Your task to perform on an android device: View the shopping cart on amazon. Search for lg ultragear on amazon, select the first entry, add it to the cart, then select checkout. Image 0: 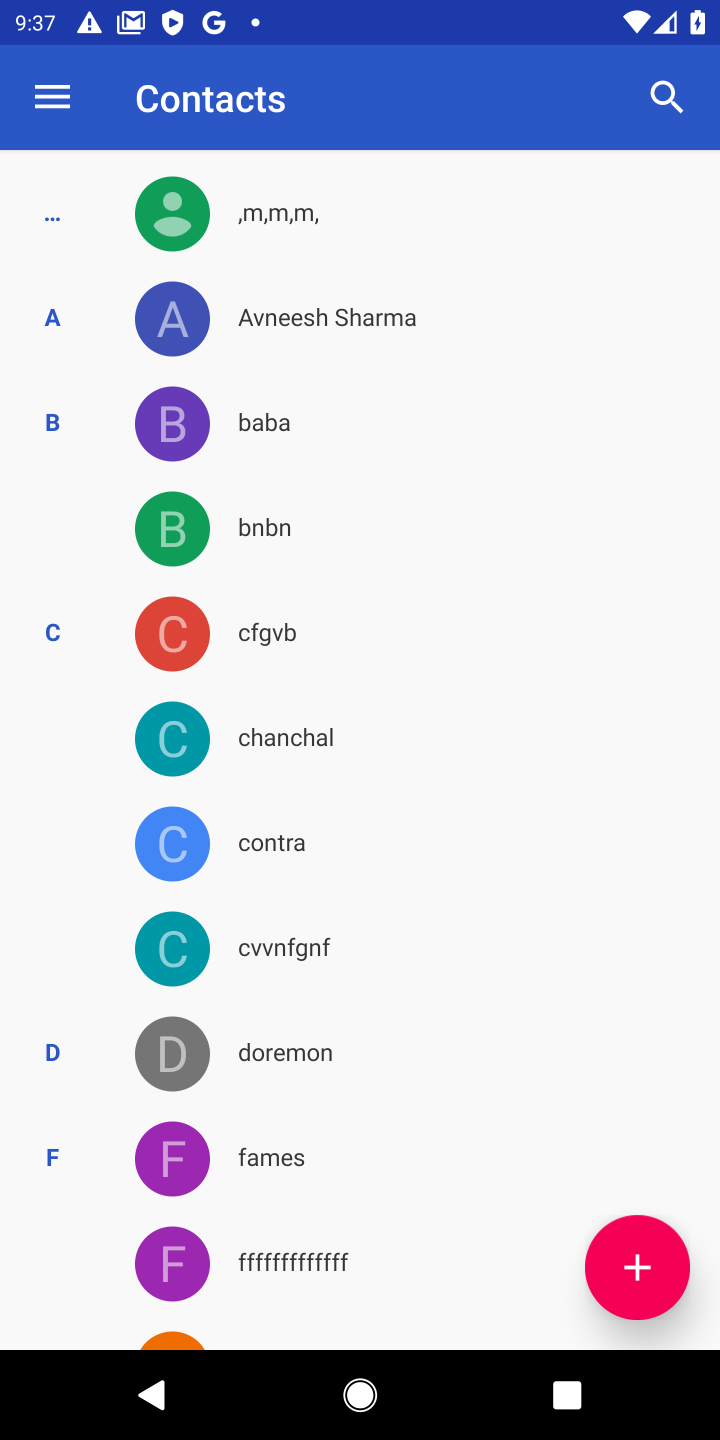
Step 0: press home button
Your task to perform on an android device: View the shopping cart on amazon. Search for lg ultragear on amazon, select the first entry, add it to the cart, then select checkout. Image 1: 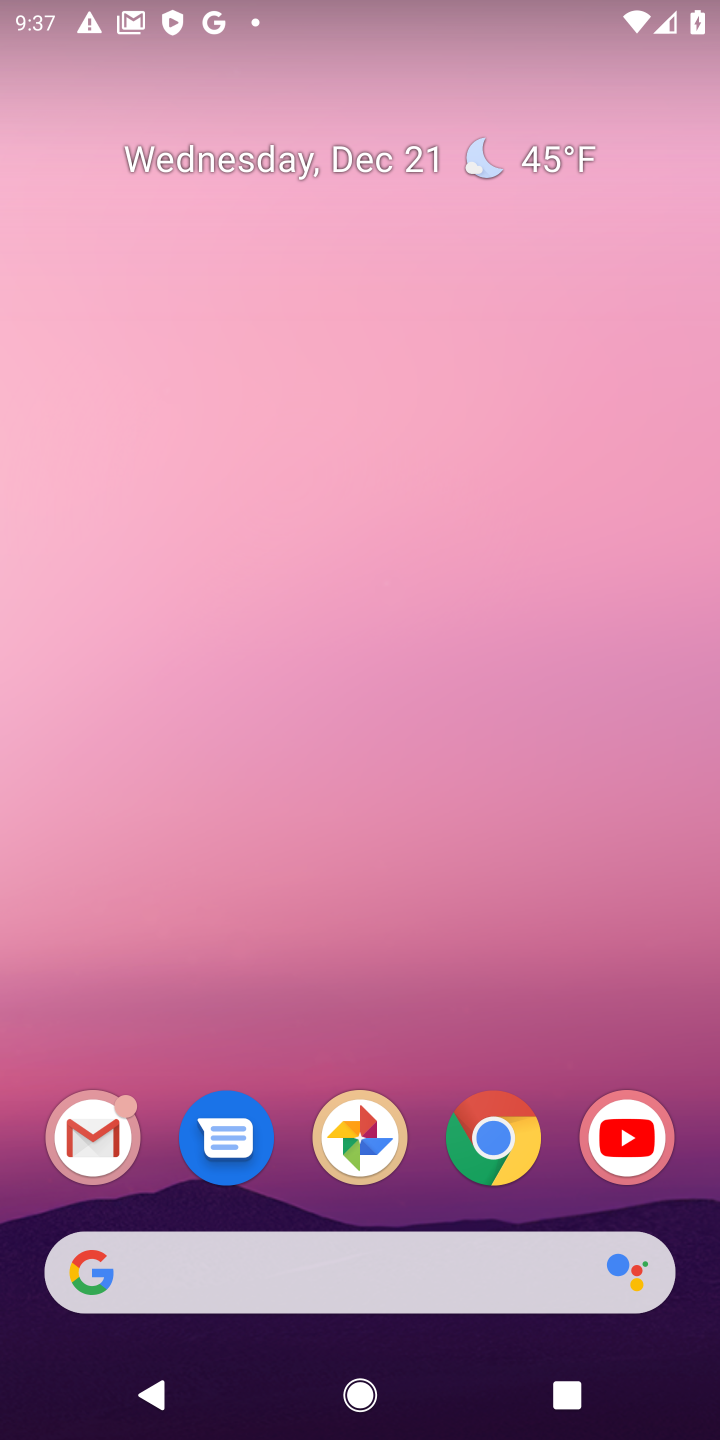
Step 1: click (497, 1150)
Your task to perform on an android device: View the shopping cart on amazon. Search for lg ultragear on amazon, select the first entry, add it to the cart, then select checkout. Image 2: 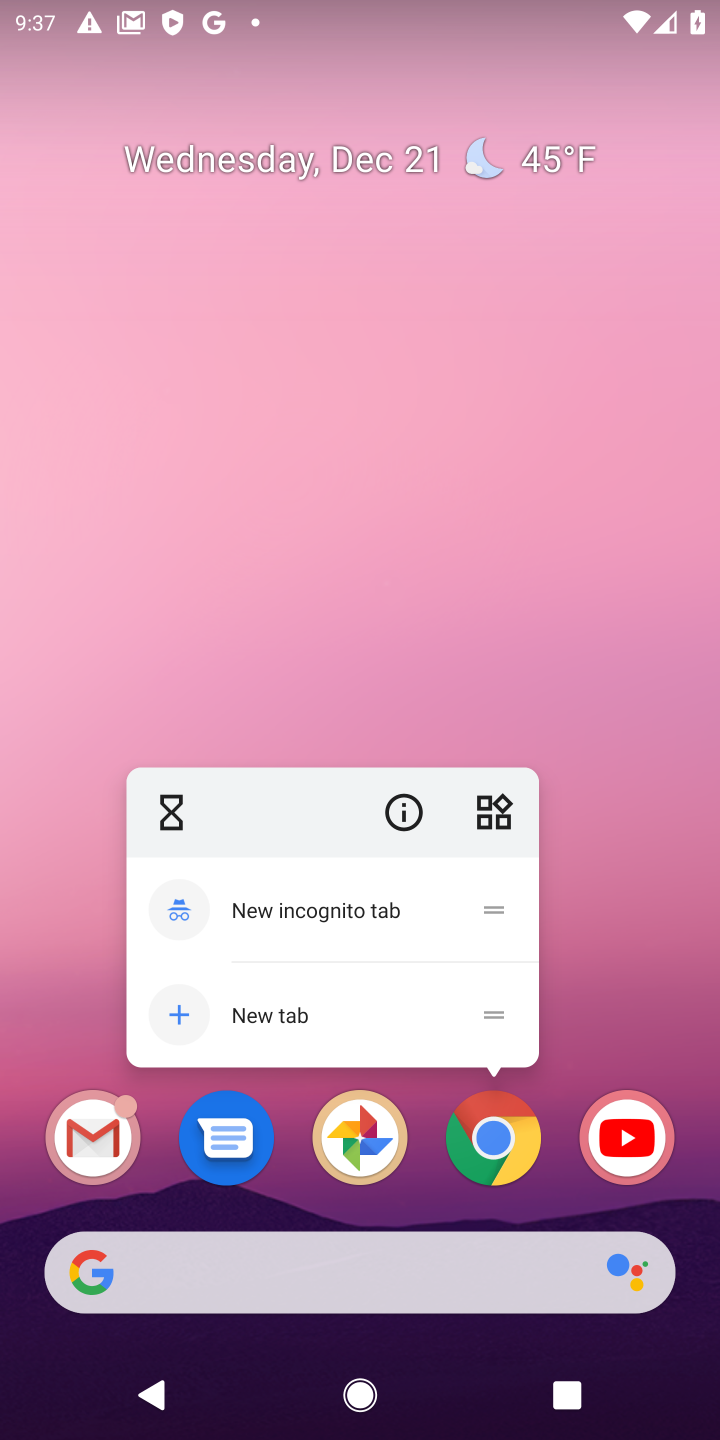
Step 2: click (497, 1150)
Your task to perform on an android device: View the shopping cart on amazon. Search for lg ultragear on amazon, select the first entry, add it to the cart, then select checkout. Image 3: 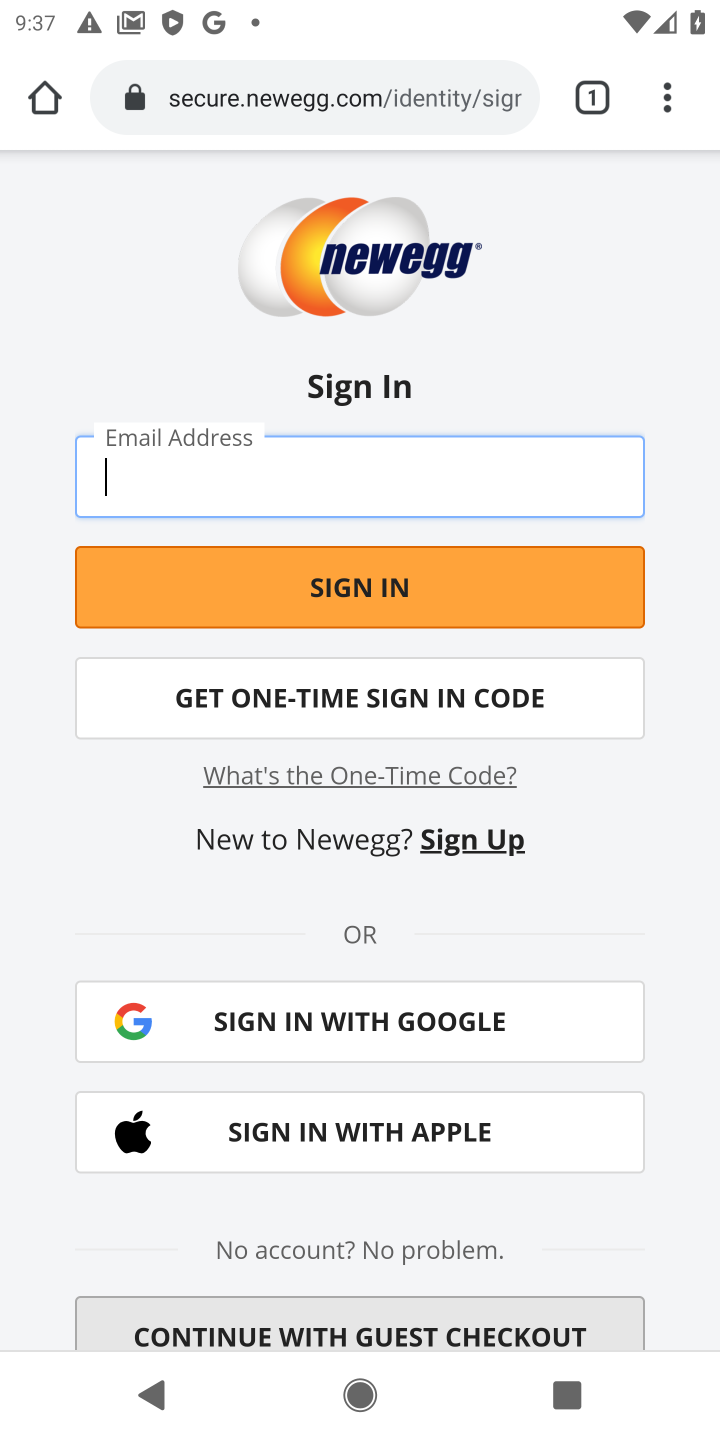
Step 3: click (308, 104)
Your task to perform on an android device: View the shopping cart on amazon. Search for lg ultragear on amazon, select the first entry, add it to the cart, then select checkout. Image 4: 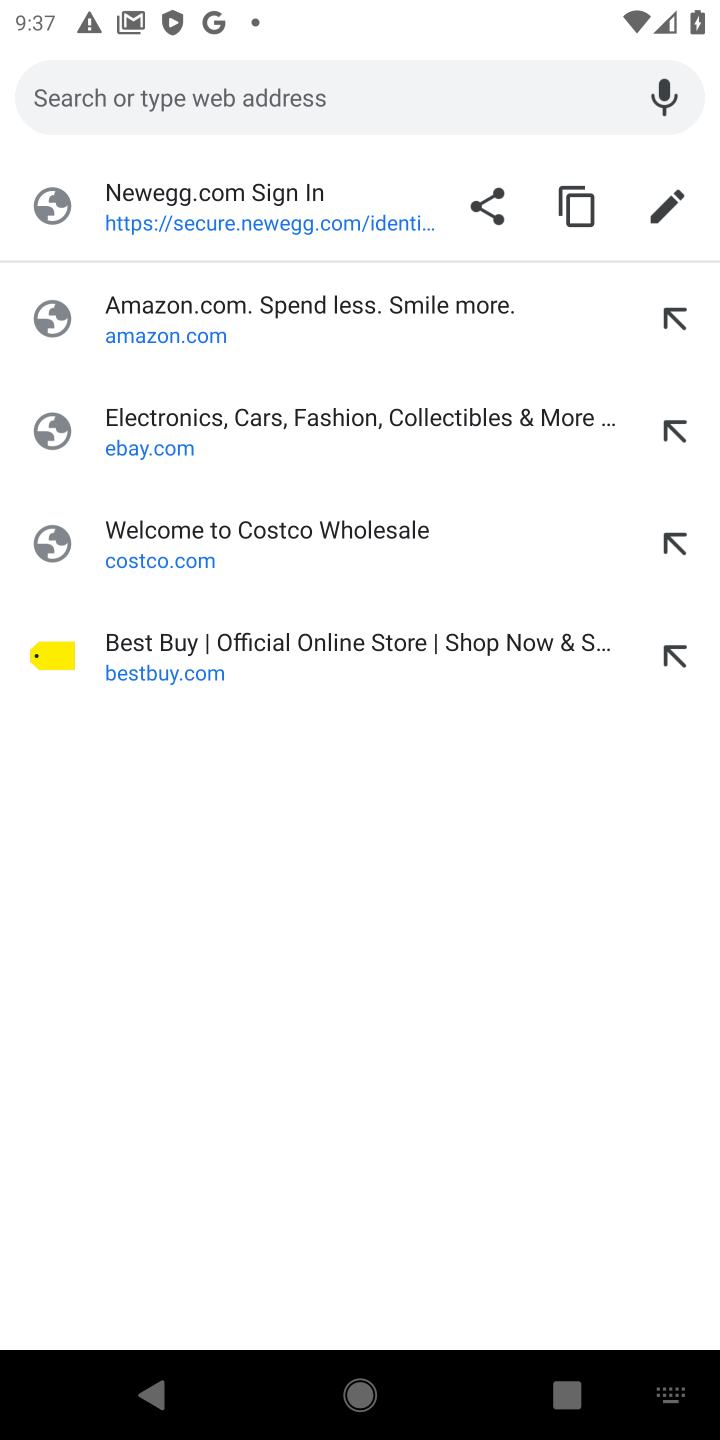
Step 4: click (151, 316)
Your task to perform on an android device: View the shopping cart on amazon. Search for lg ultragear on amazon, select the first entry, add it to the cart, then select checkout. Image 5: 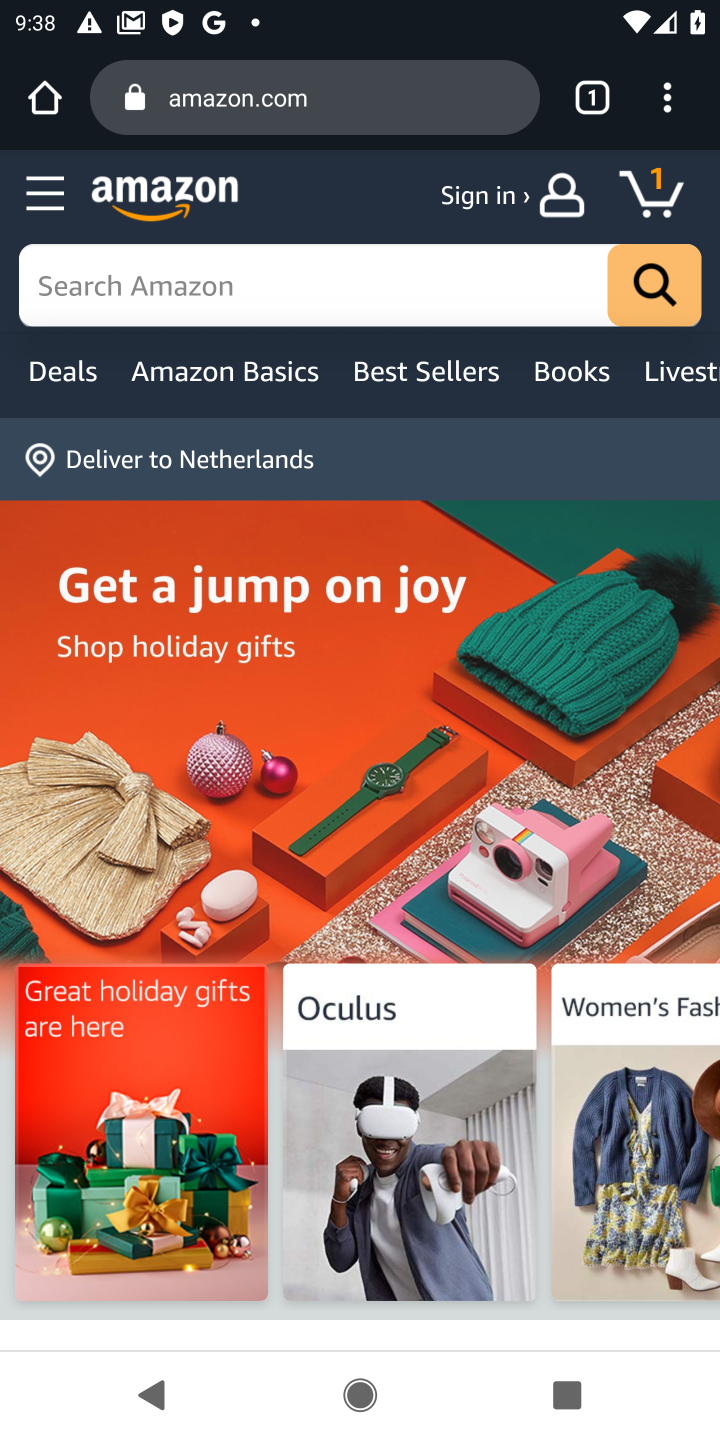
Step 5: click (650, 208)
Your task to perform on an android device: View the shopping cart on amazon. Search for lg ultragear on amazon, select the first entry, add it to the cart, then select checkout. Image 6: 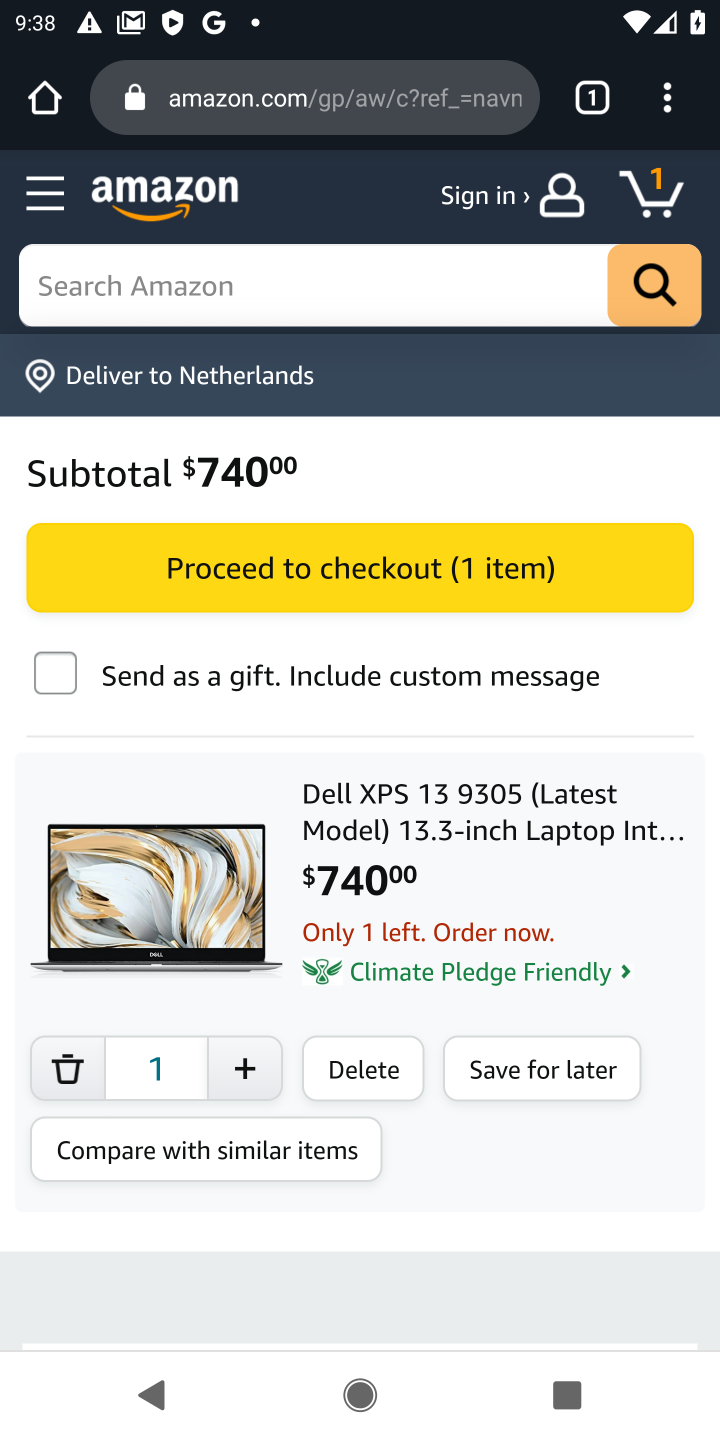
Step 6: click (88, 278)
Your task to perform on an android device: View the shopping cart on amazon. Search for lg ultragear on amazon, select the first entry, add it to the cart, then select checkout. Image 7: 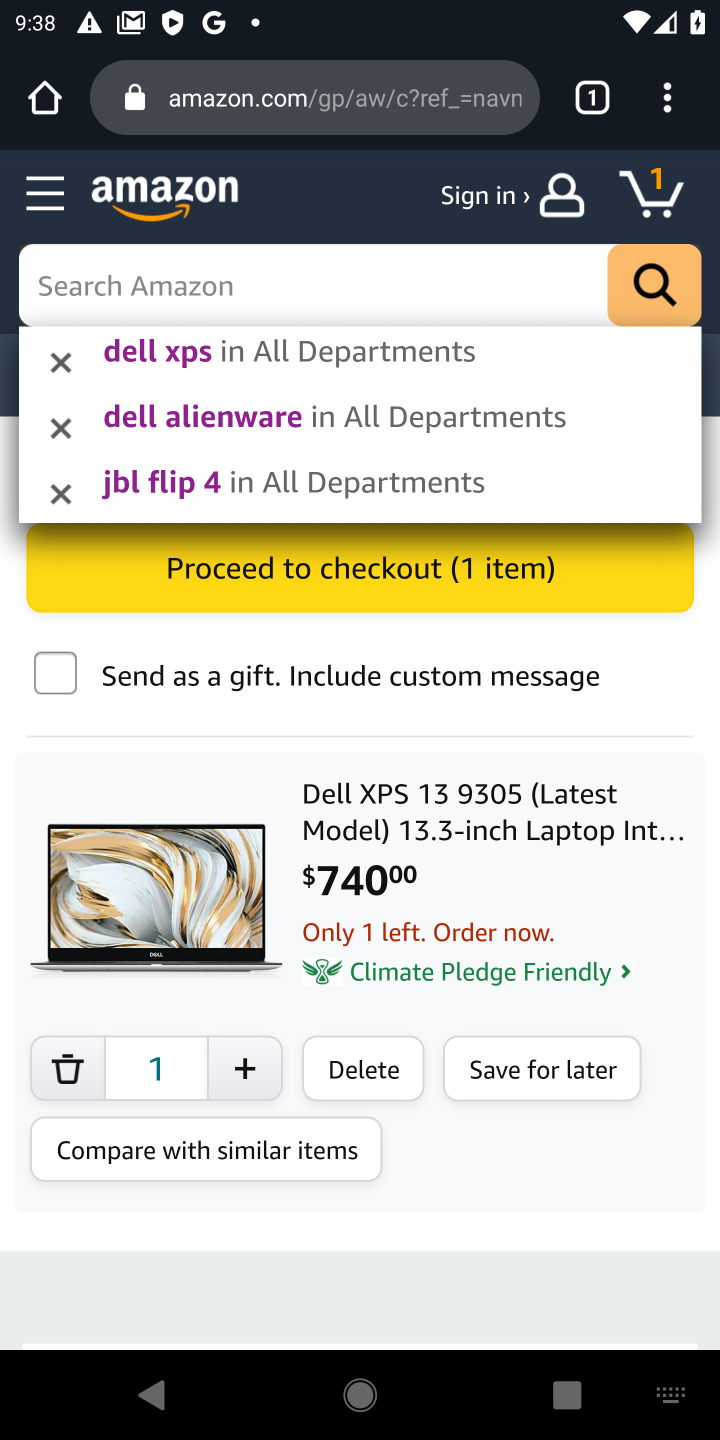
Step 7: type "lg ultragear"
Your task to perform on an android device: View the shopping cart on amazon. Search for lg ultragear on amazon, select the first entry, add it to the cart, then select checkout. Image 8: 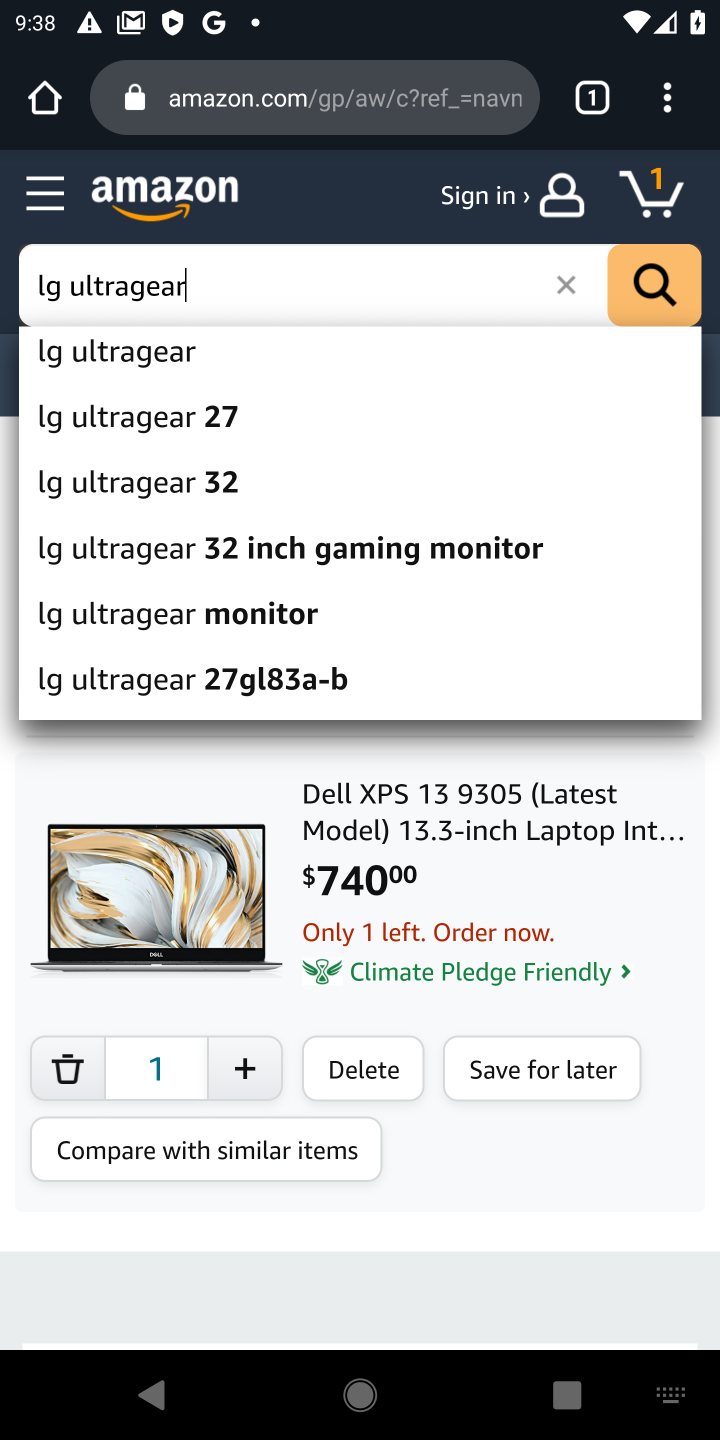
Step 8: click (114, 355)
Your task to perform on an android device: View the shopping cart on amazon. Search for lg ultragear on amazon, select the first entry, add it to the cart, then select checkout. Image 9: 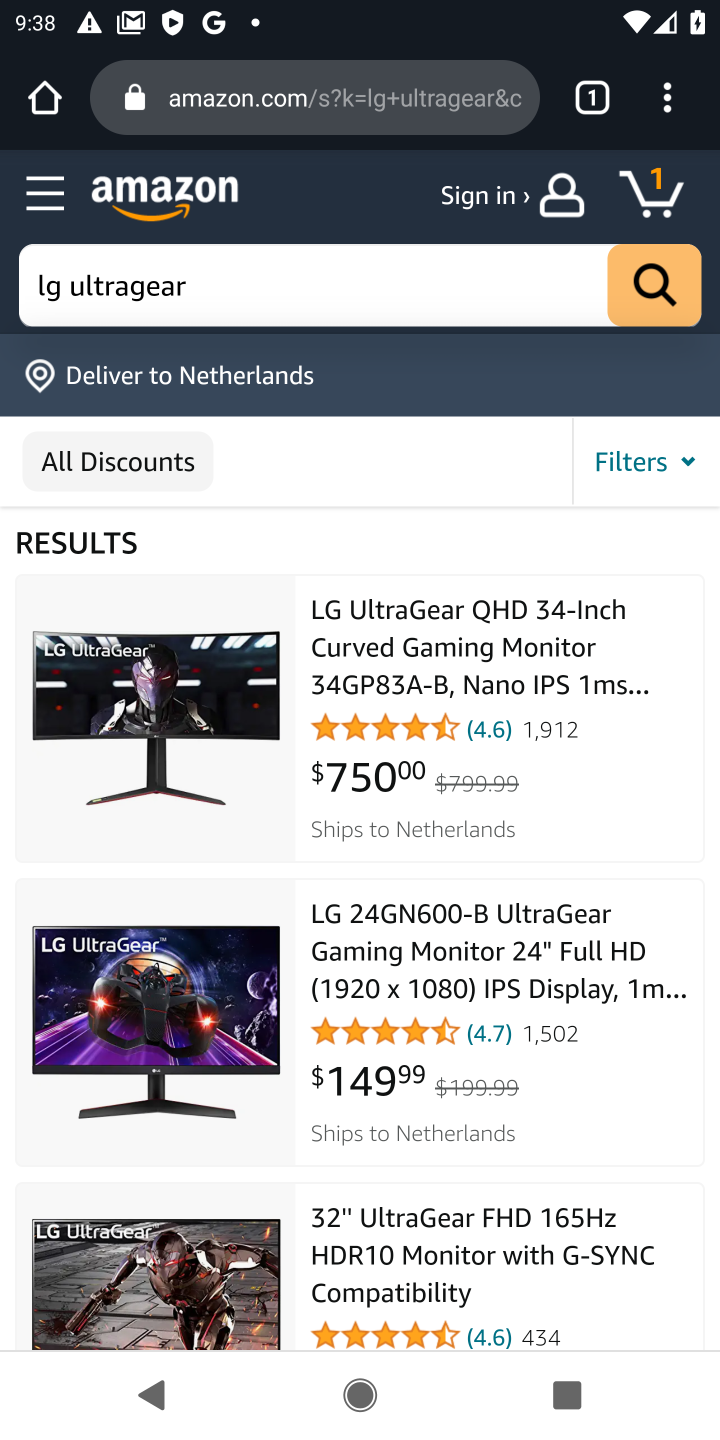
Step 9: click (439, 633)
Your task to perform on an android device: View the shopping cart on amazon. Search for lg ultragear on amazon, select the first entry, add it to the cart, then select checkout. Image 10: 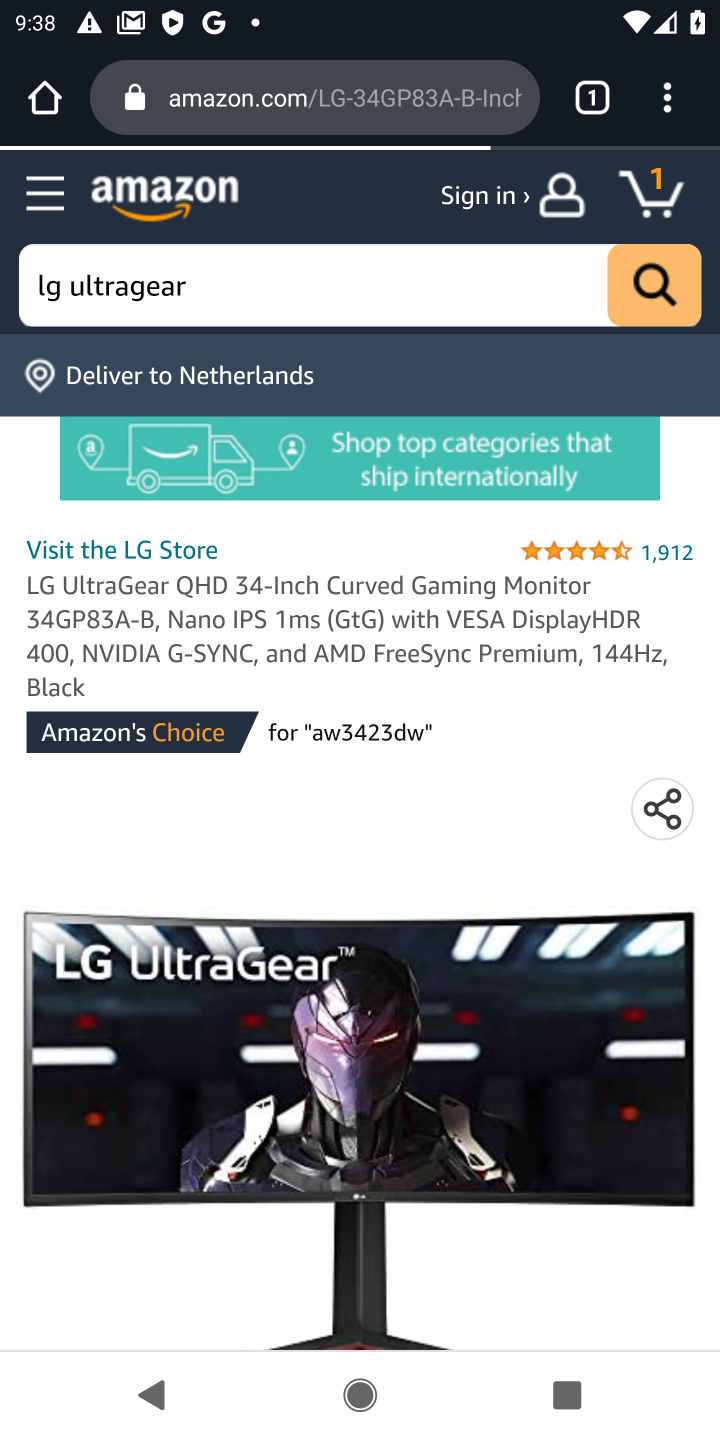
Step 10: drag from (359, 915) to (287, 512)
Your task to perform on an android device: View the shopping cart on amazon. Search for lg ultragear on amazon, select the first entry, add it to the cart, then select checkout. Image 11: 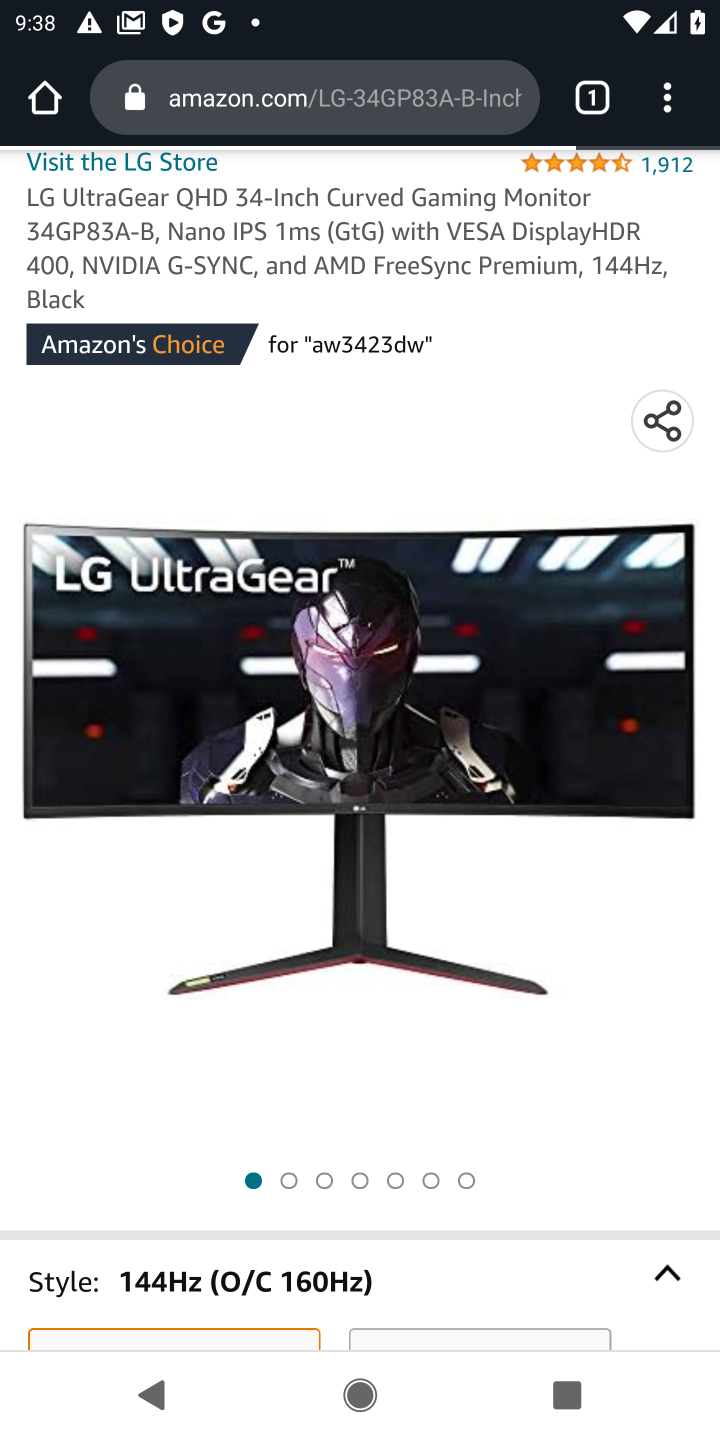
Step 11: drag from (326, 687) to (279, 456)
Your task to perform on an android device: View the shopping cart on amazon. Search for lg ultragear on amazon, select the first entry, add it to the cart, then select checkout. Image 12: 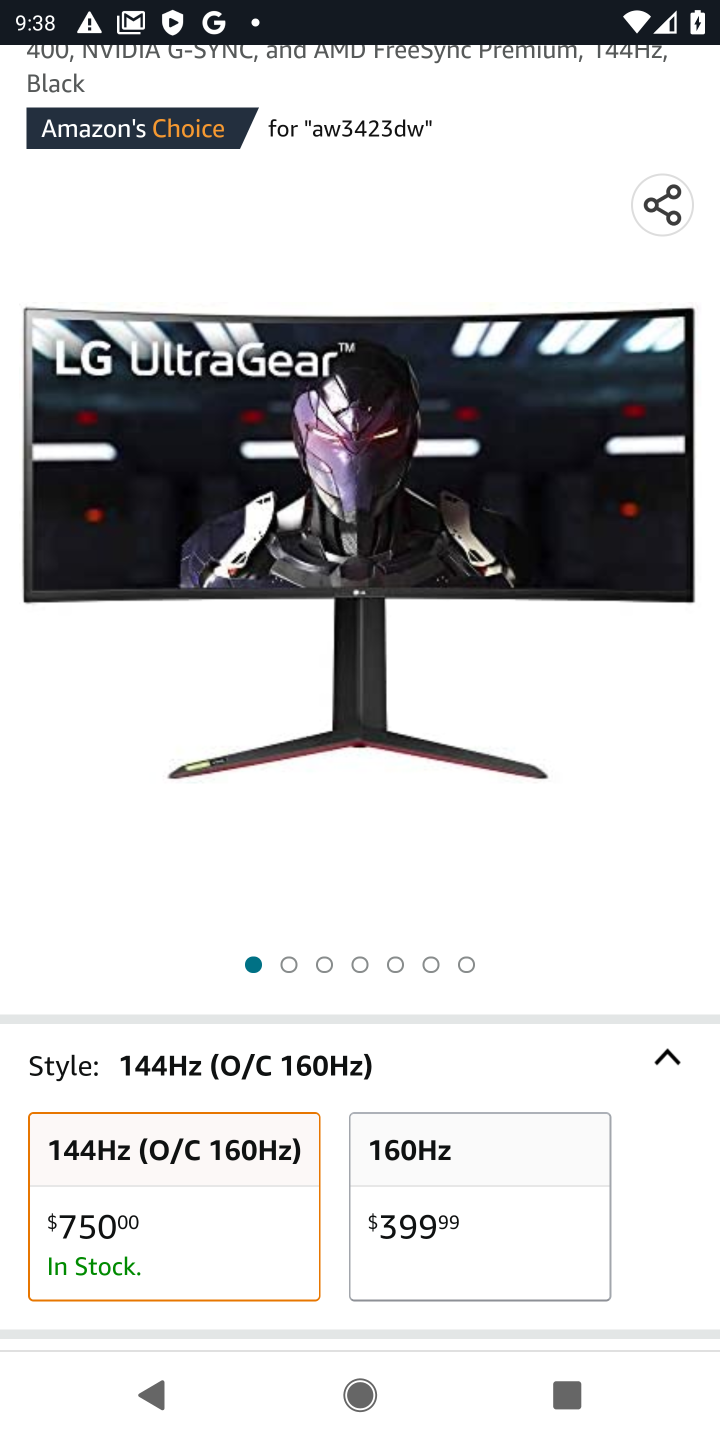
Step 12: drag from (322, 868) to (259, 368)
Your task to perform on an android device: View the shopping cart on amazon. Search for lg ultragear on amazon, select the first entry, add it to the cart, then select checkout. Image 13: 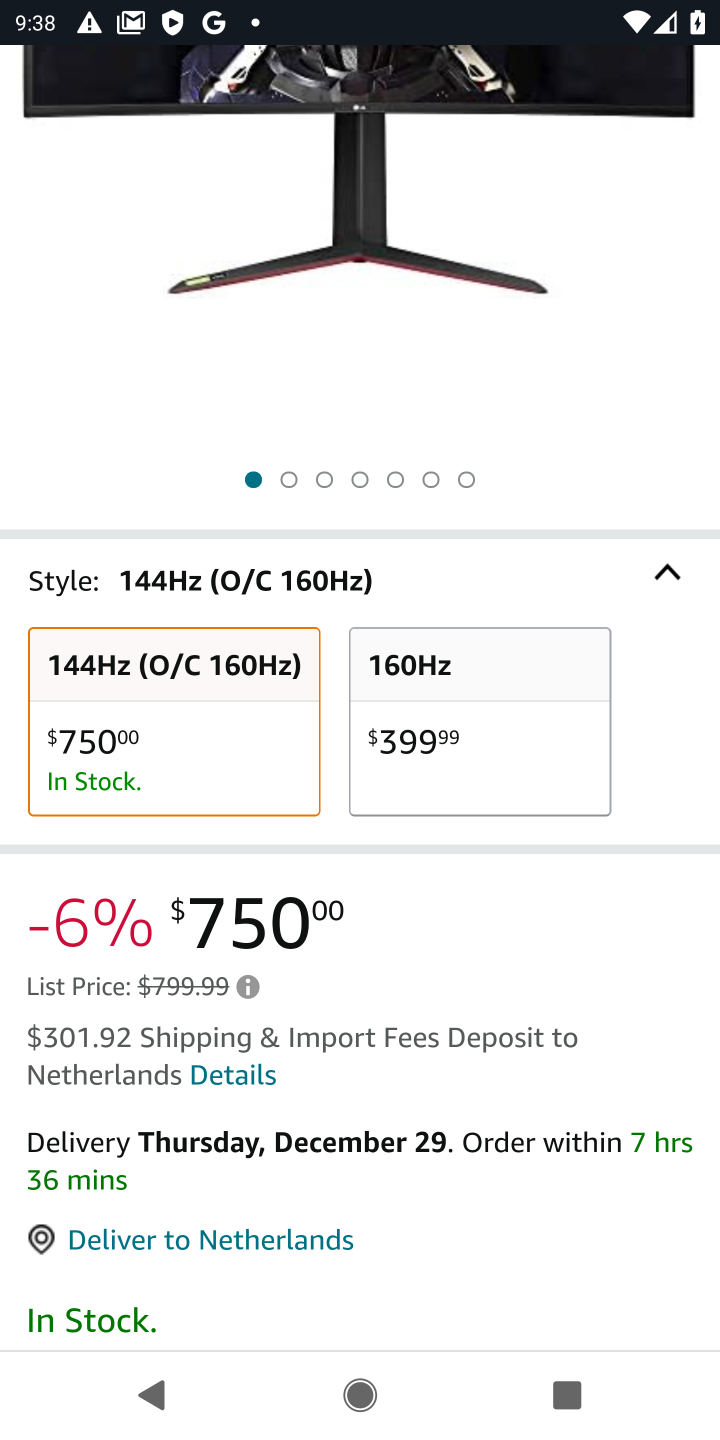
Step 13: drag from (351, 871) to (292, 268)
Your task to perform on an android device: View the shopping cart on amazon. Search for lg ultragear on amazon, select the first entry, add it to the cart, then select checkout. Image 14: 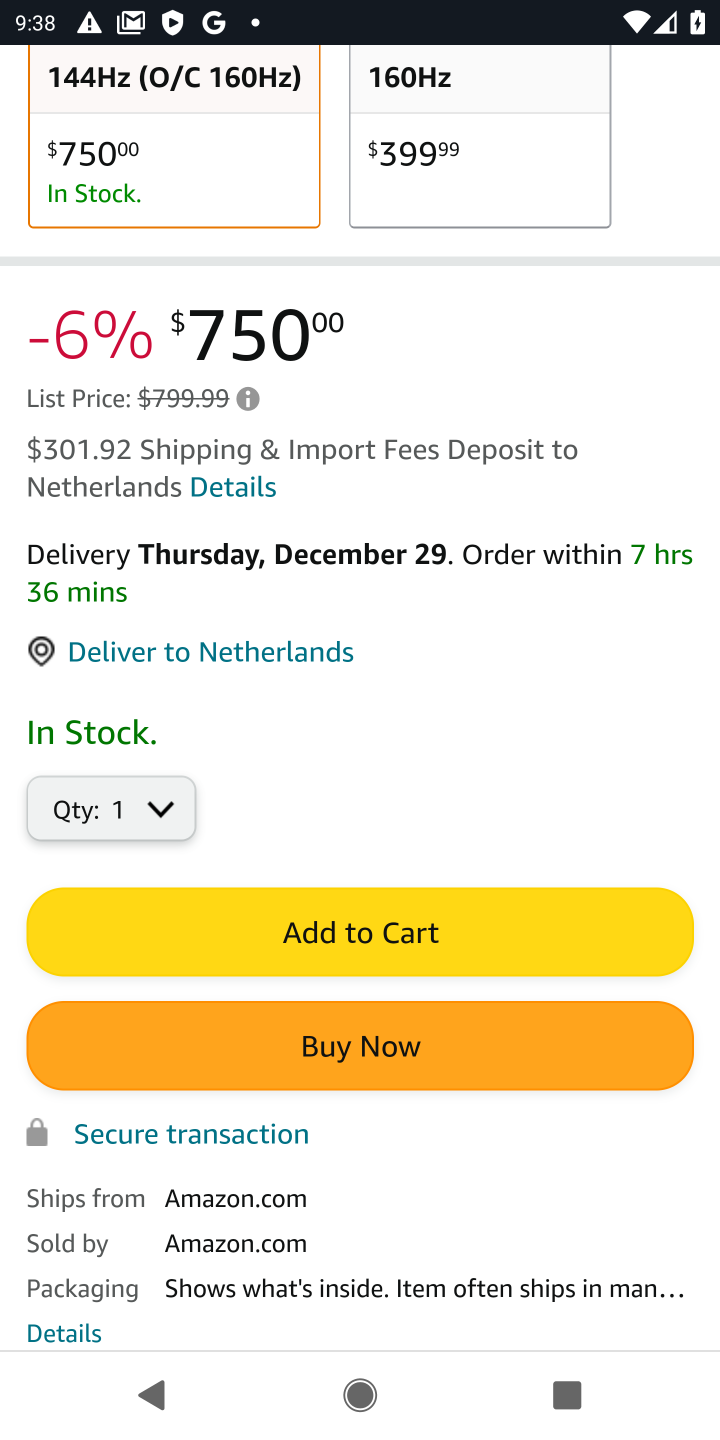
Step 14: click (376, 931)
Your task to perform on an android device: View the shopping cart on amazon. Search for lg ultragear on amazon, select the first entry, add it to the cart, then select checkout. Image 15: 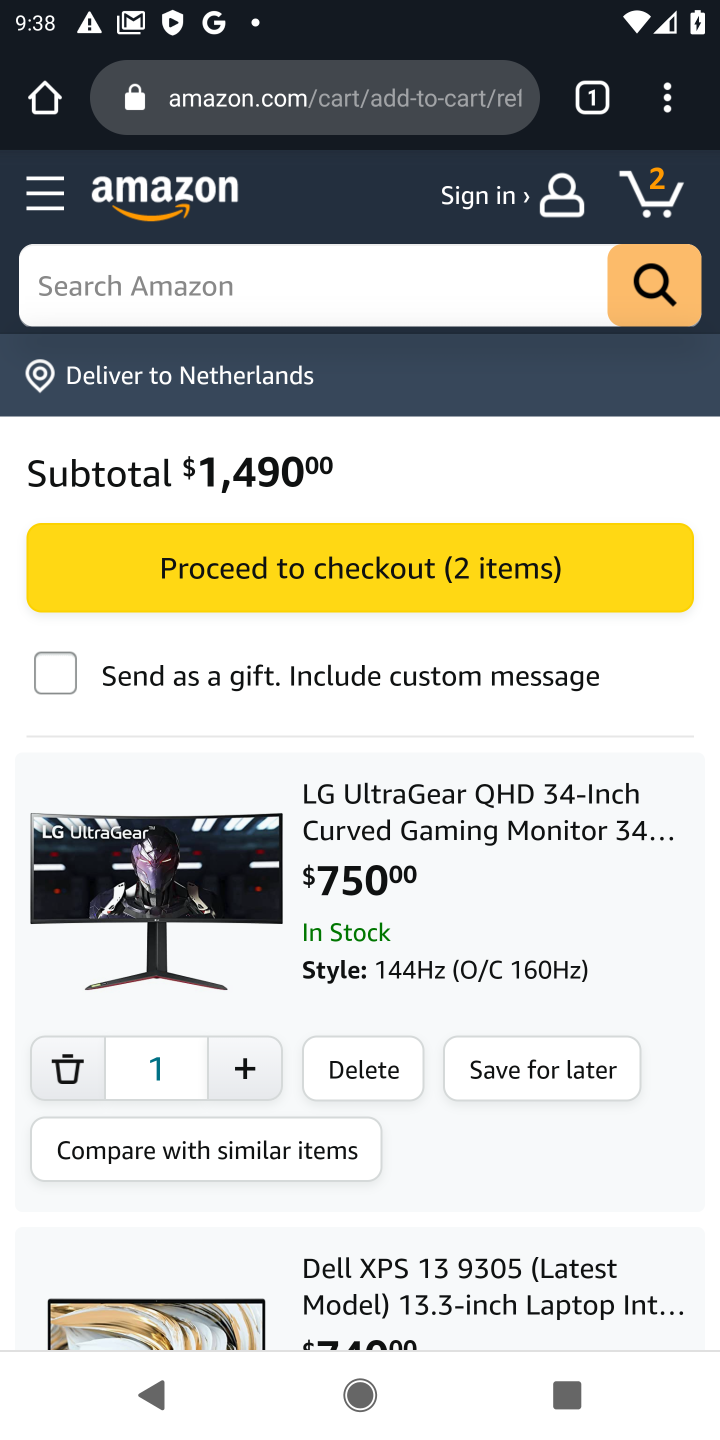
Step 15: click (328, 569)
Your task to perform on an android device: View the shopping cart on amazon. Search for lg ultragear on amazon, select the first entry, add it to the cart, then select checkout. Image 16: 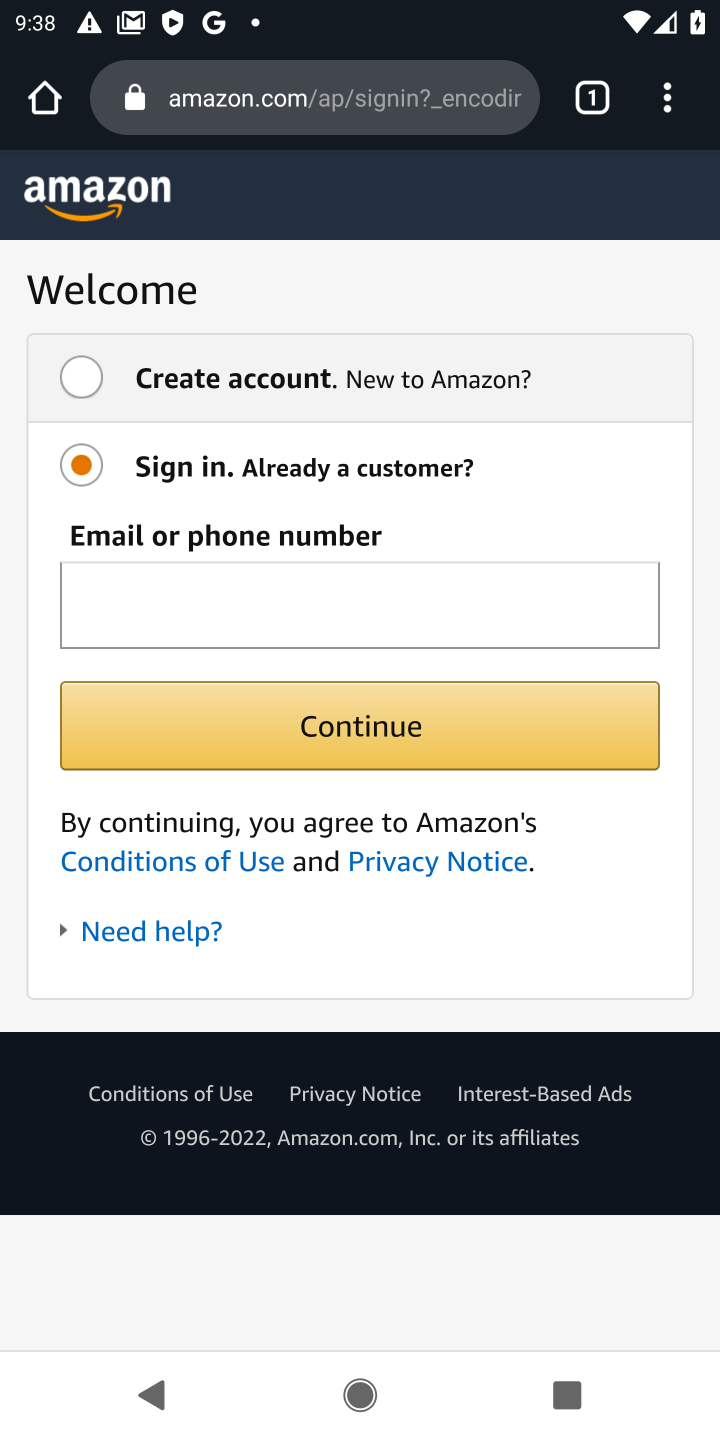
Step 16: task complete